Your task to perform on an android device: change timer sound Image 0: 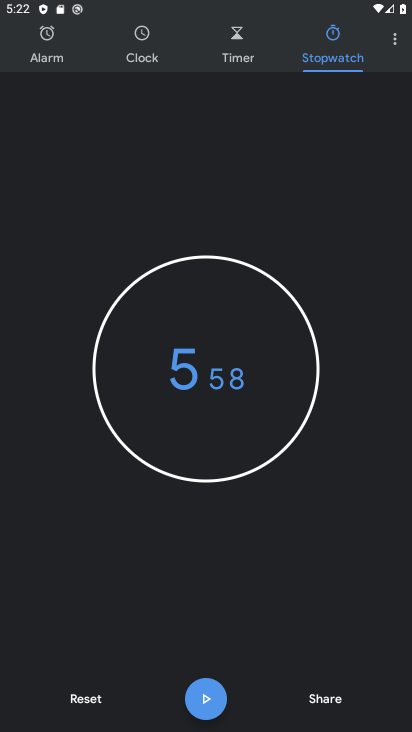
Step 0: click (239, 36)
Your task to perform on an android device: change timer sound Image 1: 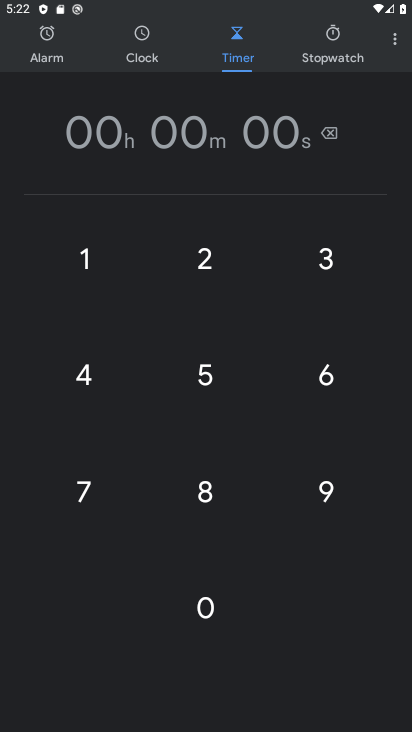
Step 1: click (391, 39)
Your task to perform on an android device: change timer sound Image 2: 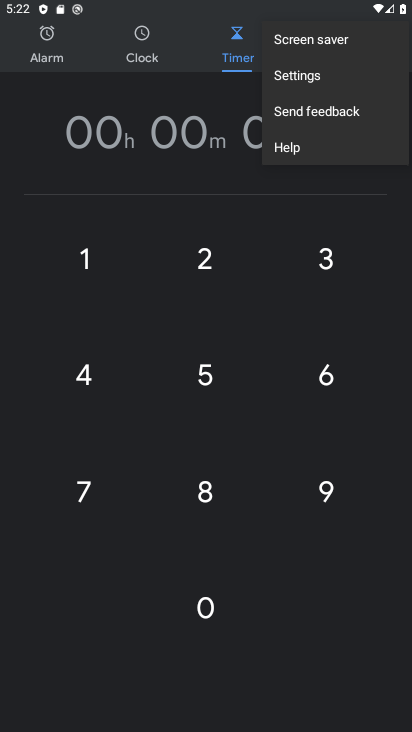
Step 2: click (300, 77)
Your task to perform on an android device: change timer sound Image 3: 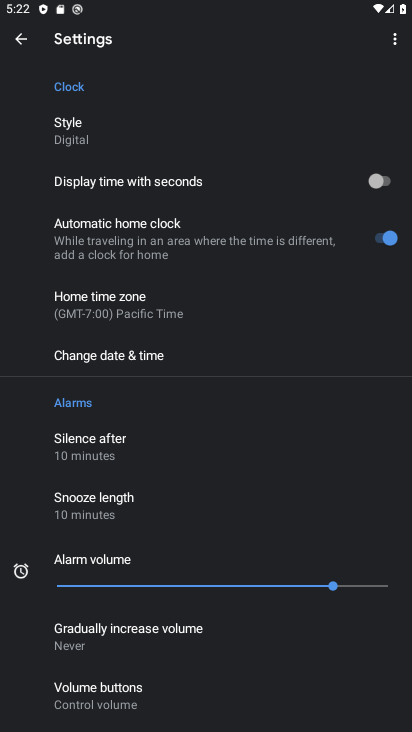
Step 3: drag from (210, 449) to (204, 222)
Your task to perform on an android device: change timer sound Image 4: 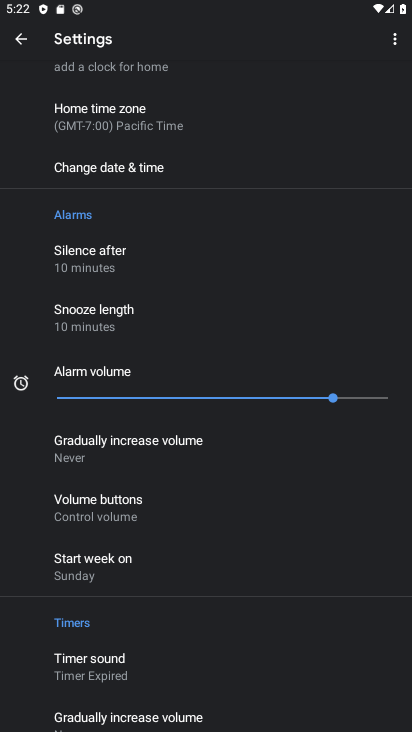
Step 4: drag from (145, 578) to (146, 439)
Your task to perform on an android device: change timer sound Image 5: 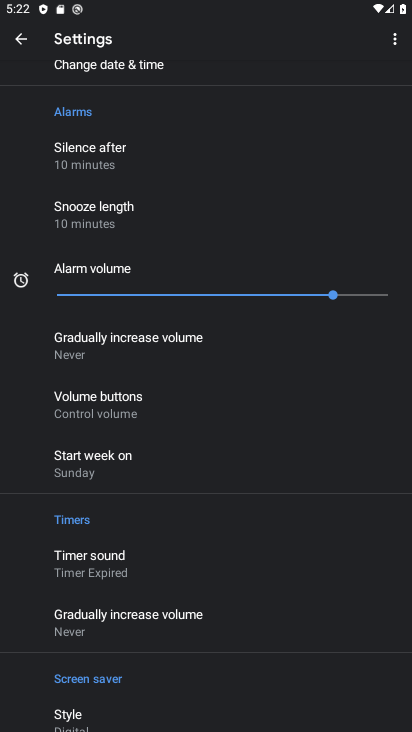
Step 5: click (103, 579)
Your task to perform on an android device: change timer sound Image 6: 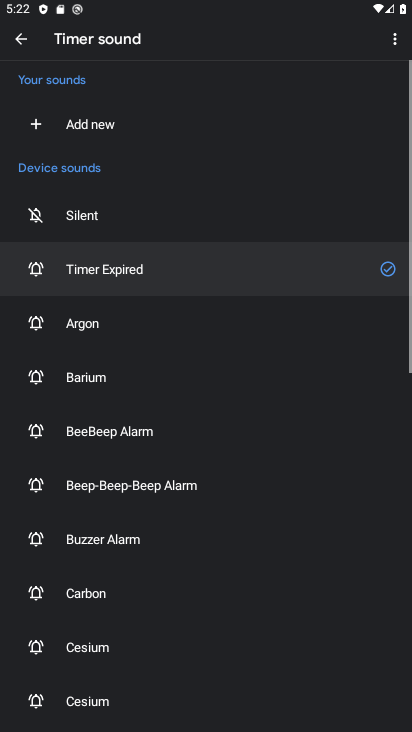
Step 6: click (80, 316)
Your task to perform on an android device: change timer sound Image 7: 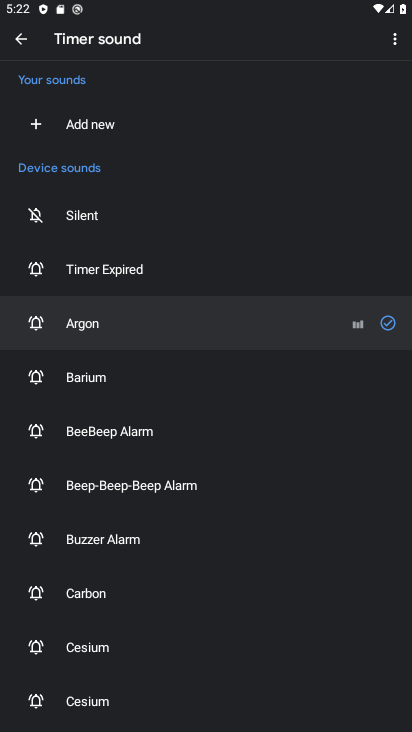
Step 7: task complete